Your task to perform on an android device: set the stopwatch Image 0: 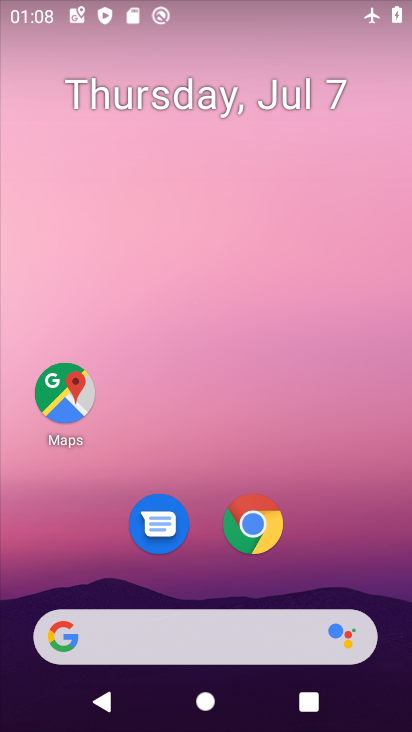
Step 0: drag from (244, 434) to (188, 28)
Your task to perform on an android device: set the stopwatch Image 1: 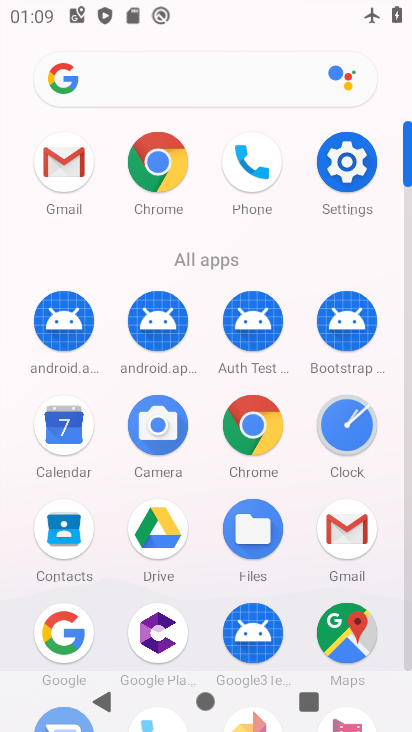
Step 1: click (331, 425)
Your task to perform on an android device: set the stopwatch Image 2: 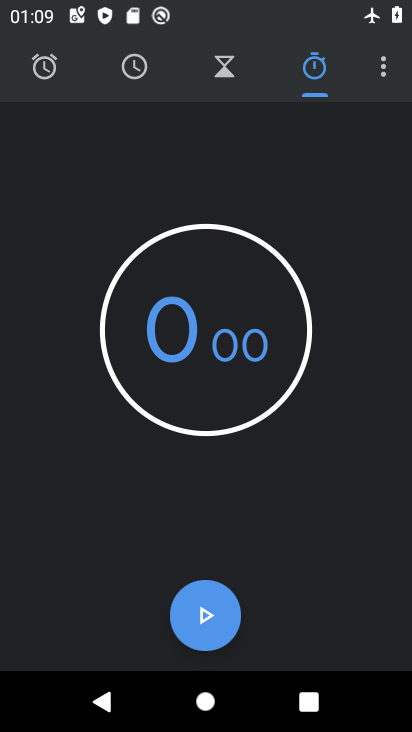
Step 2: click (211, 622)
Your task to perform on an android device: set the stopwatch Image 3: 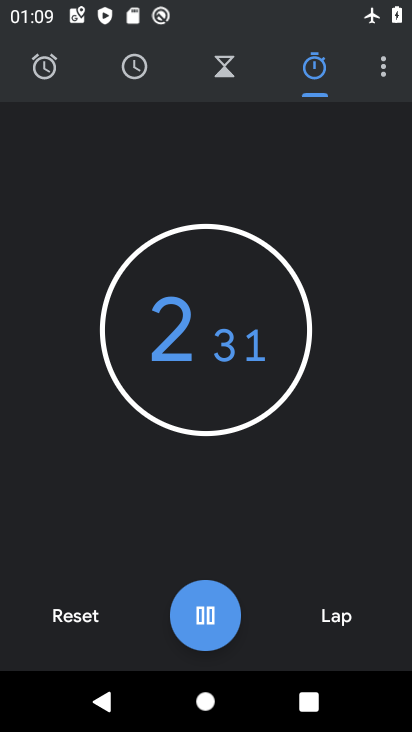
Step 3: click (211, 621)
Your task to perform on an android device: set the stopwatch Image 4: 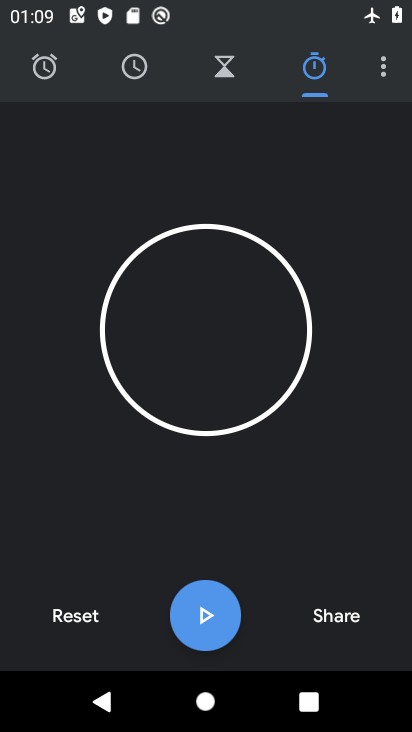
Step 4: task complete